Your task to perform on an android device: What is the recent news? Image 0: 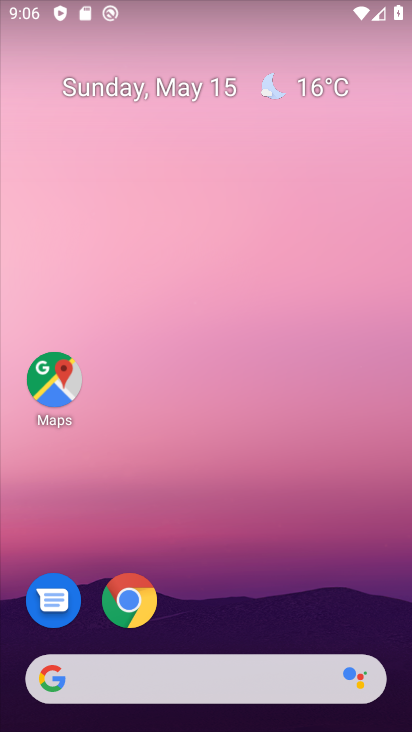
Step 0: drag from (4, 295) to (300, 257)
Your task to perform on an android device: What is the recent news? Image 1: 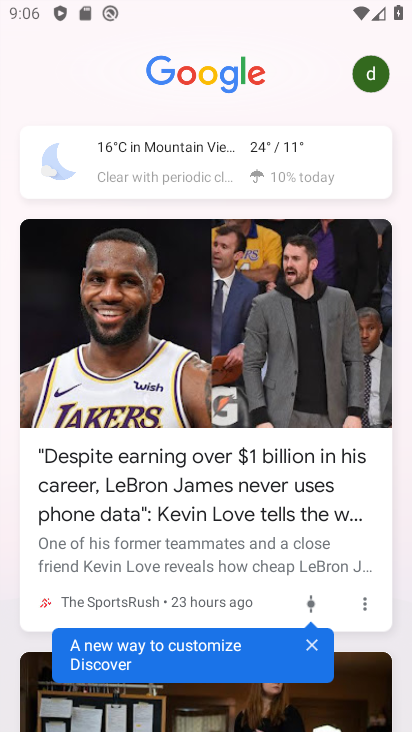
Step 1: click (315, 645)
Your task to perform on an android device: What is the recent news? Image 2: 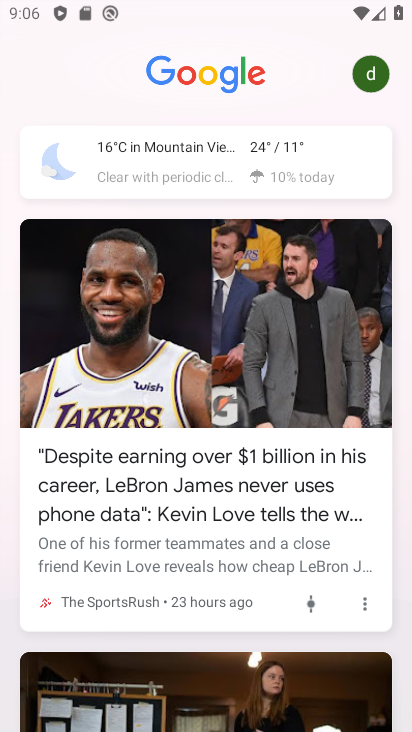
Step 2: task complete